Your task to perform on an android device: Go to network settings Image 0: 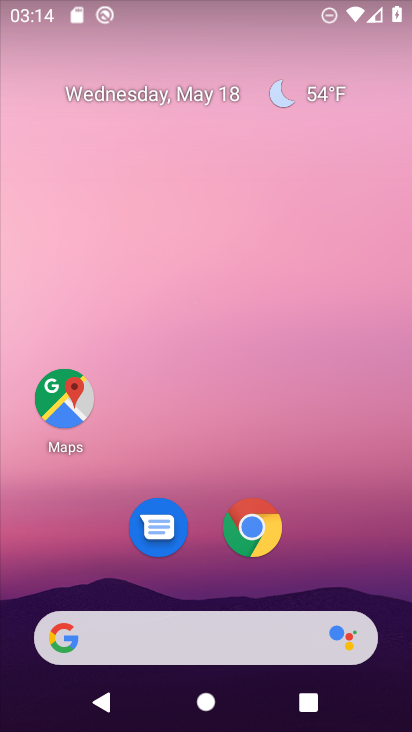
Step 0: drag from (200, 586) to (129, 37)
Your task to perform on an android device: Go to network settings Image 1: 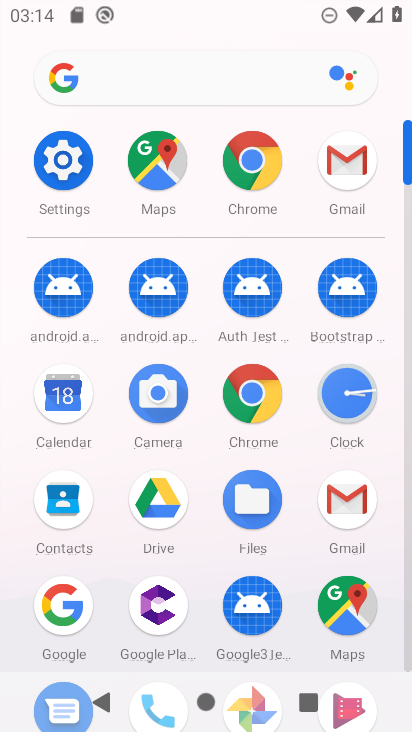
Step 1: click (50, 158)
Your task to perform on an android device: Go to network settings Image 2: 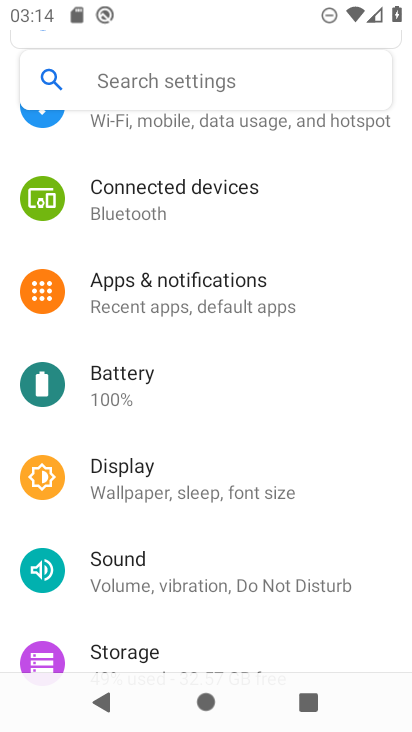
Step 2: drag from (226, 219) to (221, 537)
Your task to perform on an android device: Go to network settings Image 3: 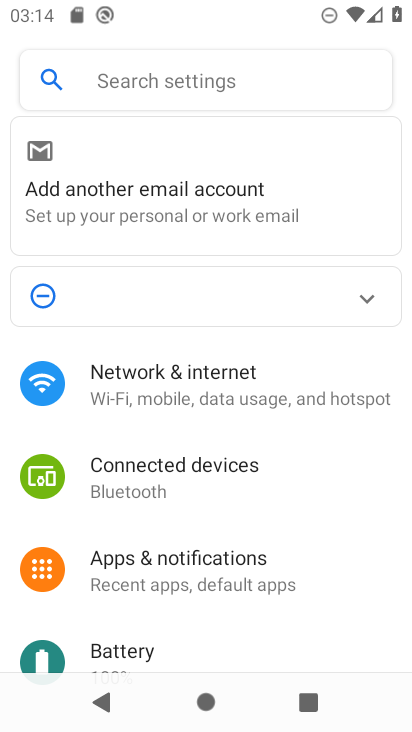
Step 3: click (217, 388)
Your task to perform on an android device: Go to network settings Image 4: 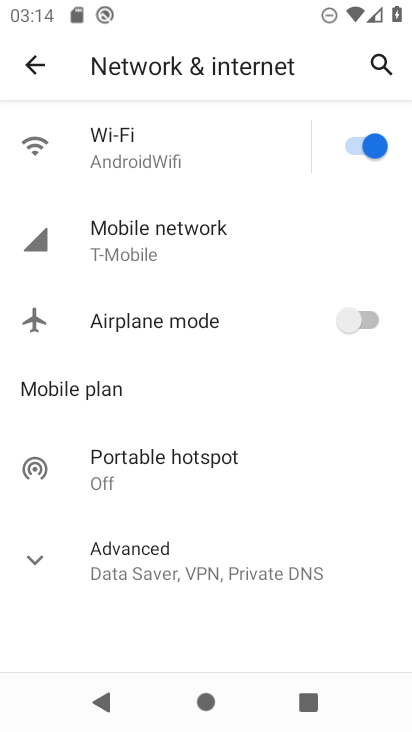
Step 4: click (200, 218)
Your task to perform on an android device: Go to network settings Image 5: 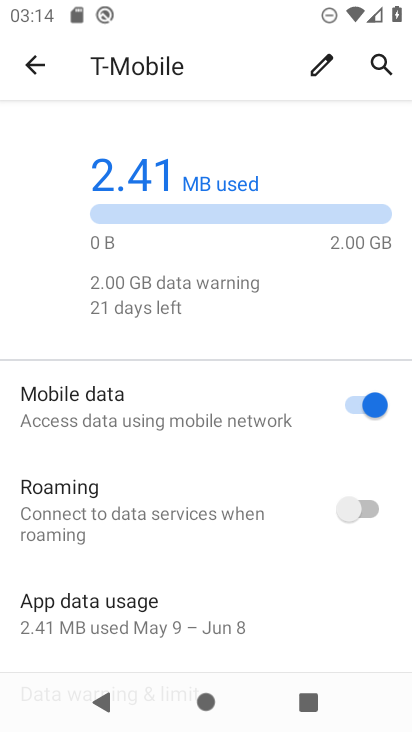
Step 5: task complete